Your task to perform on an android device: Search for Mexican restaurants on Maps Image 0: 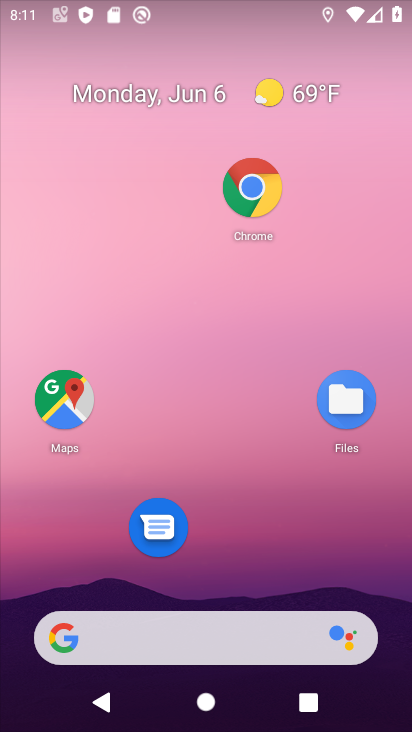
Step 0: click (59, 402)
Your task to perform on an android device: Search for Mexican restaurants on Maps Image 1: 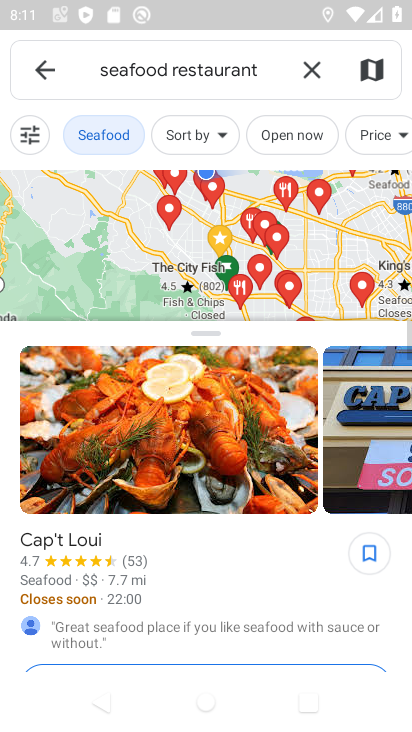
Step 1: click (316, 67)
Your task to perform on an android device: Search for Mexican restaurants on Maps Image 2: 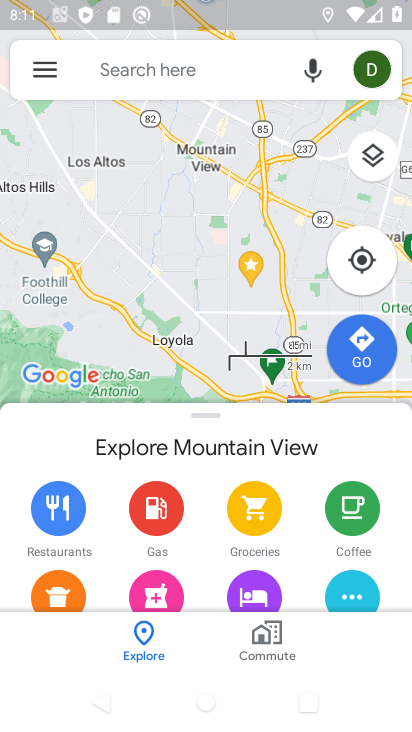
Step 2: click (175, 71)
Your task to perform on an android device: Search for Mexican restaurants on Maps Image 3: 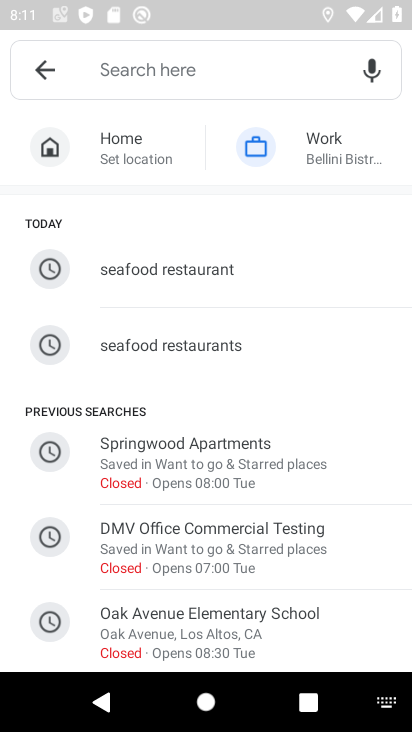
Step 3: drag from (194, 412) to (202, 285)
Your task to perform on an android device: Search for Mexican restaurants on Maps Image 4: 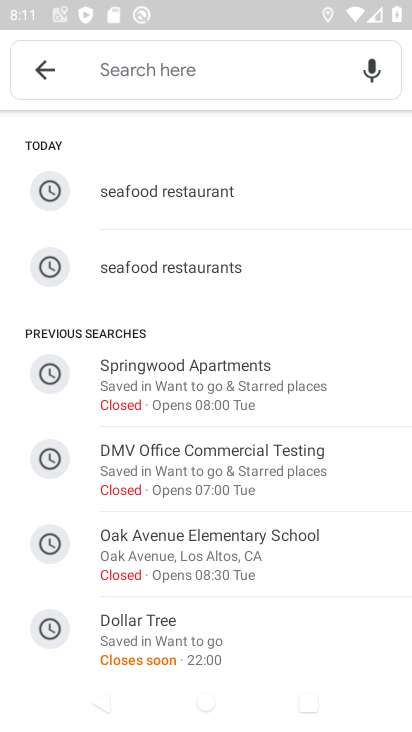
Step 4: click (183, 83)
Your task to perform on an android device: Search for Mexican restaurants on Maps Image 5: 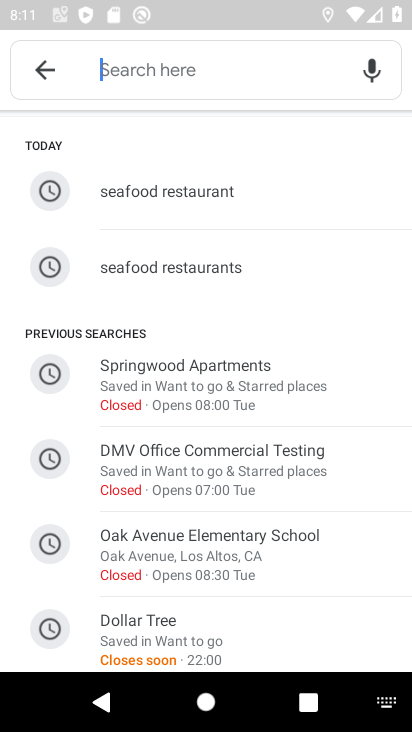
Step 5: type "mexican restaurent"
Your task to perform on an android device: Search for Mexican restaurants on Maps Image 6: 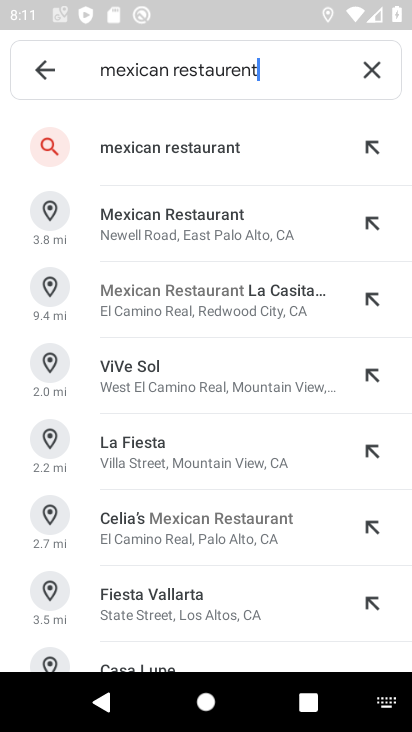
Step 6: click (204, 237)
Your task to perform on an android device: Search for Mexican restaurants on Maps Image 7: 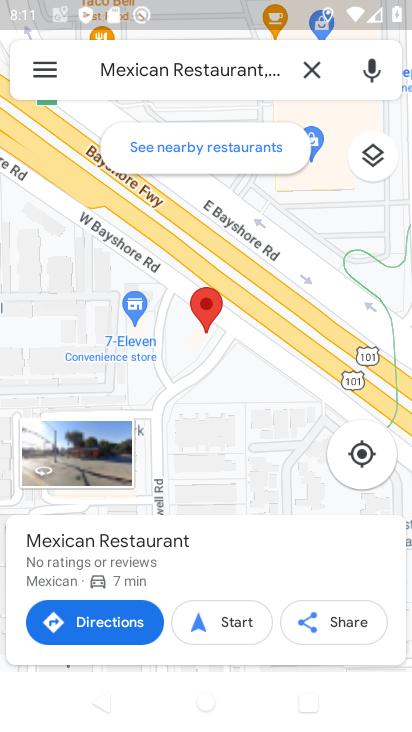
Step 7: task complete